Your task to perform on an android device: empty trash in the gmail app Image 0: 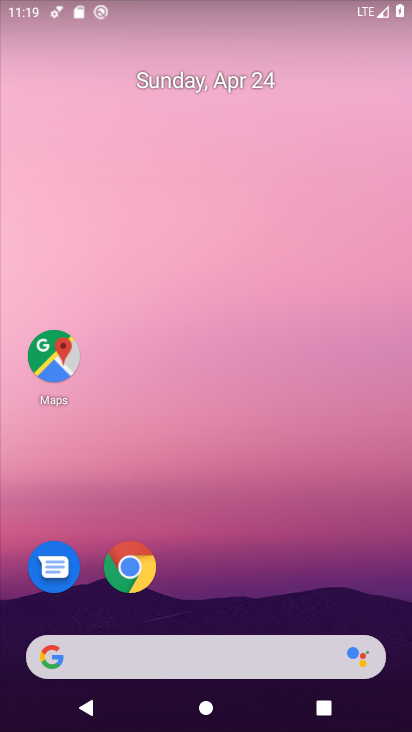
Step 0: drag from (272, 377) to (406, 26)
Your task to perform on an android device: empty trash in the gmail app Image 1: 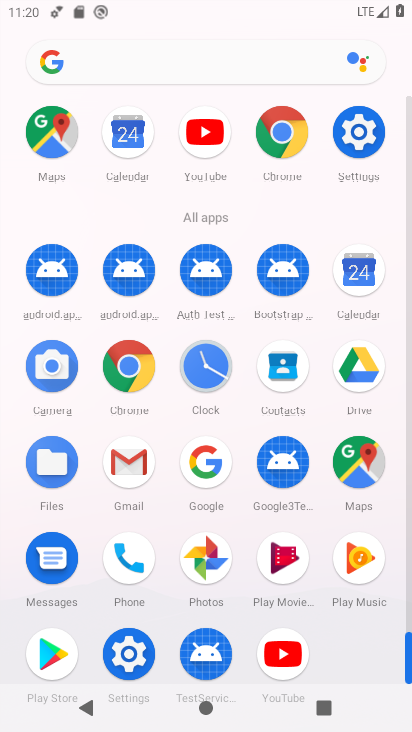
Step 1: click (137, 477)
Your task to perform on an android device: empty trash in the gmail app Image 2: 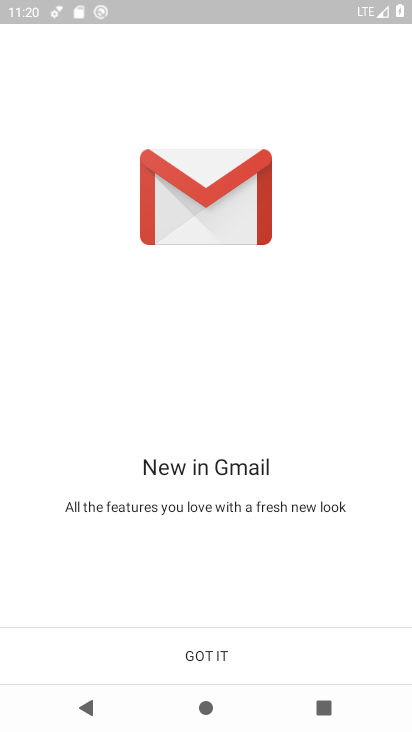
Step 2: click (212, 644)
Your task to perform on an android device: empty trash in the gmail app Image 3: 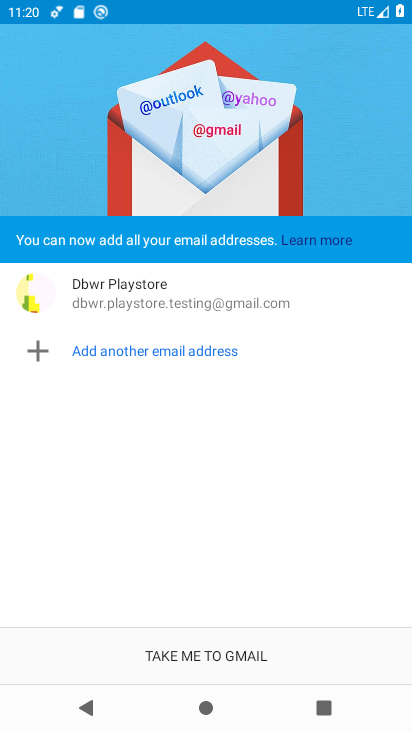
Step 3: click (303, 666)
Your task to perform on an android device: empty trash in the gmail app Image 4: 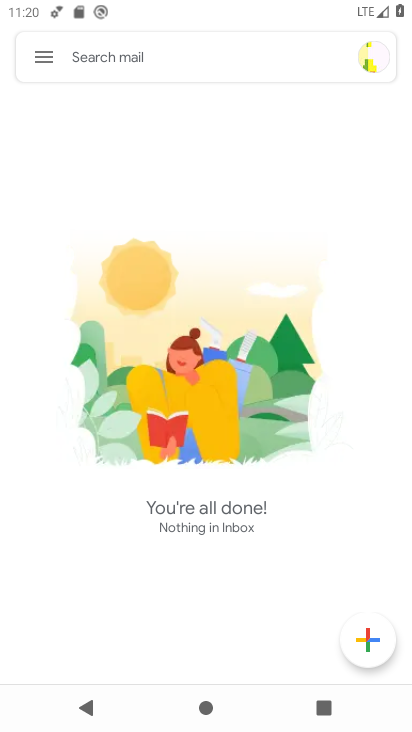
Step 4: click (38, 63)
Your task to perform on an android device: empty trash in the gmail app Image 5: 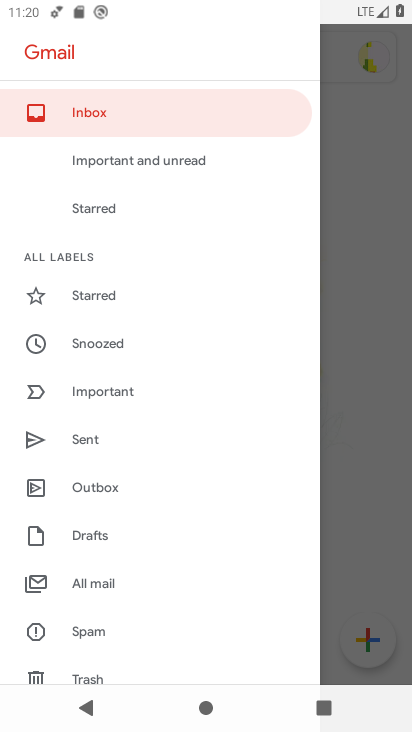
Step 5: click (113, 675)
Your task to perform on an android device: empty trash in the gmail app Image 6: 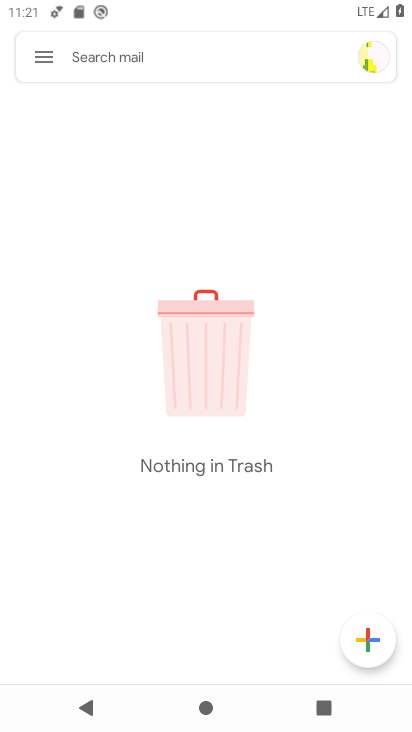
Step 6: task complete